Your task to perform on an android device: Go to wifi settings Image 0: 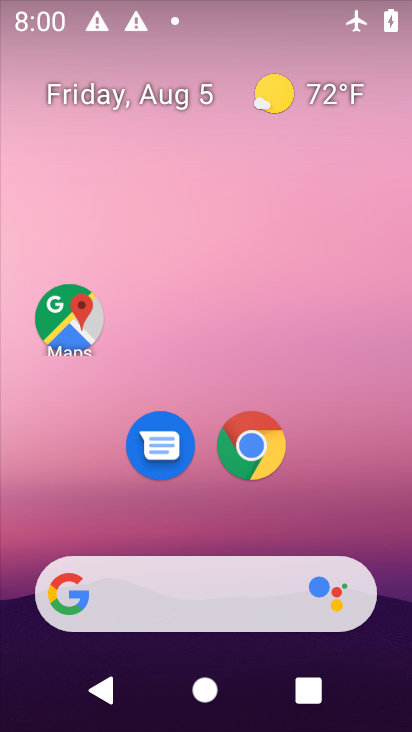
Step 0: drag from (198, 531) to (244, 131)
Your task to perform on an android device: Go to wifi settings Image 1: 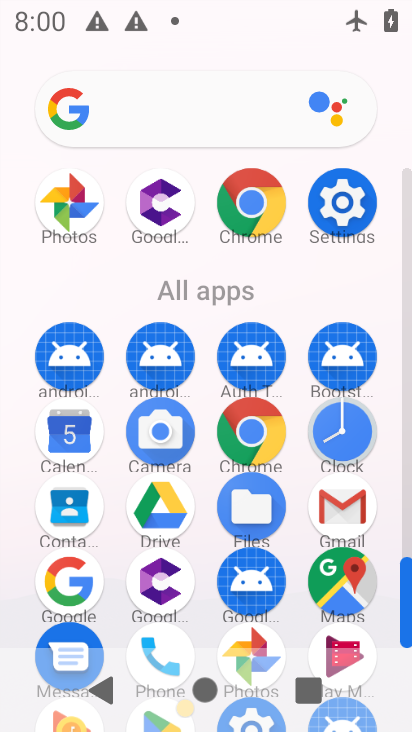
Step 1: click (338, 188)
Your task to perform on an android device: Go to wifi settings Image 2: 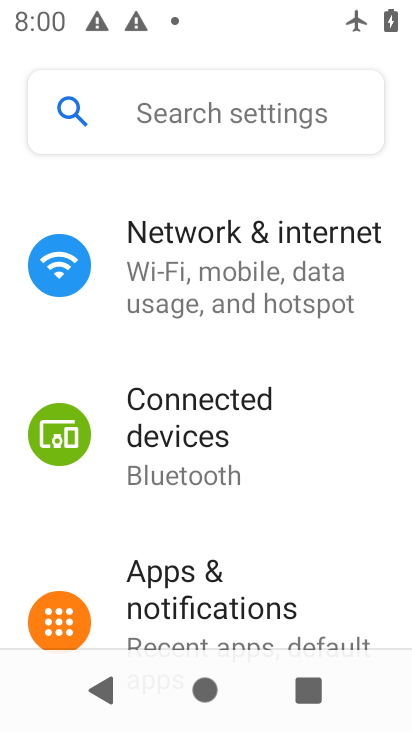
Step 2: click (275, 257)
Your task to perform on an android device: Go to wifi settings Image 3: 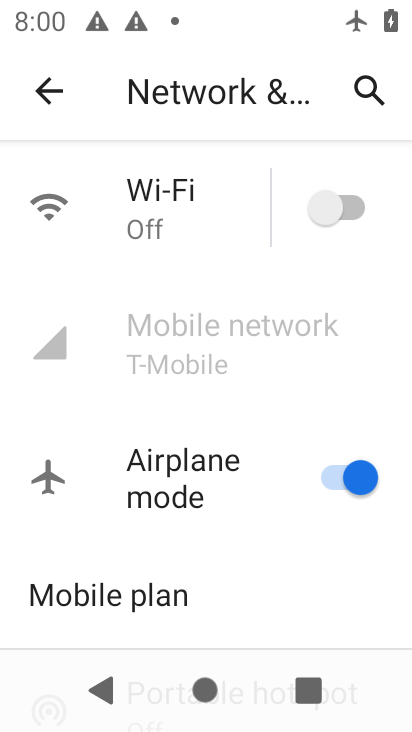
Step 3: click (146, 171)
Your task to perform on an android device: Go to wifi settings Image 4: 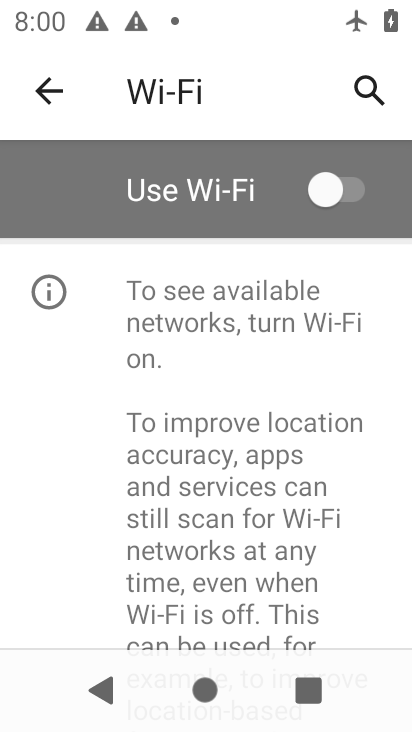
Step 4: task complete